Your task to perform on an android device: turn off translation in the chrome app Image 0: 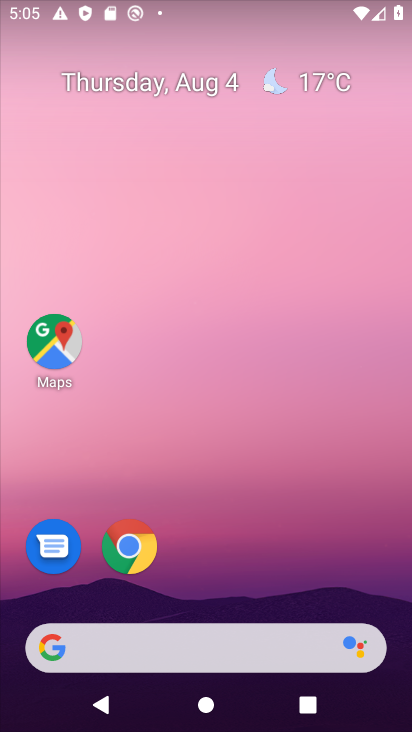
Step 0: click (133, 553)
Your task to perform on an android device: turn off translation in the chrome app Image 1: 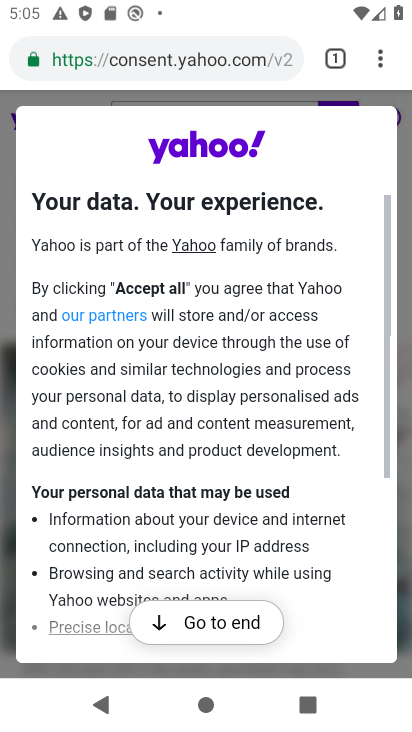
Step 1: click (376, 63)
Your task to perform on an android device: turn off translation in the chrome app Image 2: 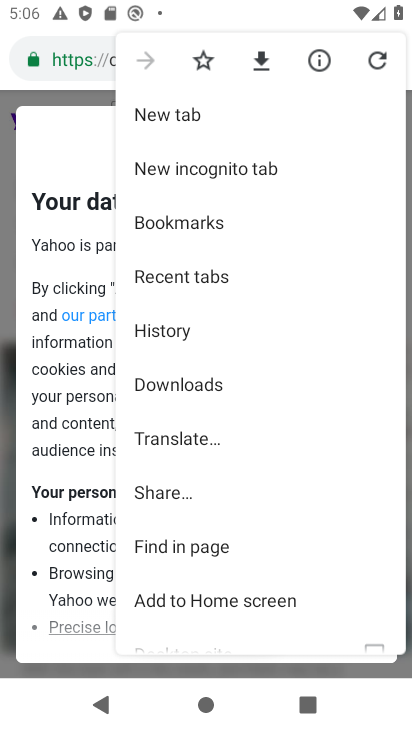
Step 2: drag from (190, 515) to (149, 185)
Your task to perform on an android device: turn off translation in the chrome app Image 3: 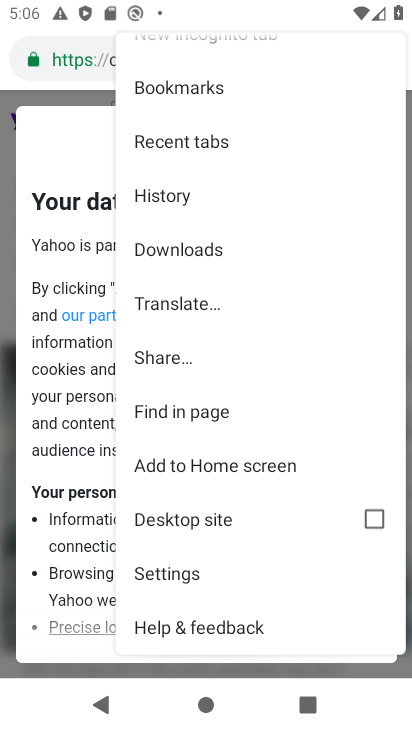
Step 3: click (172, 593)
Your task to perform on an android device: turn off translation in the chrome app Image 4: 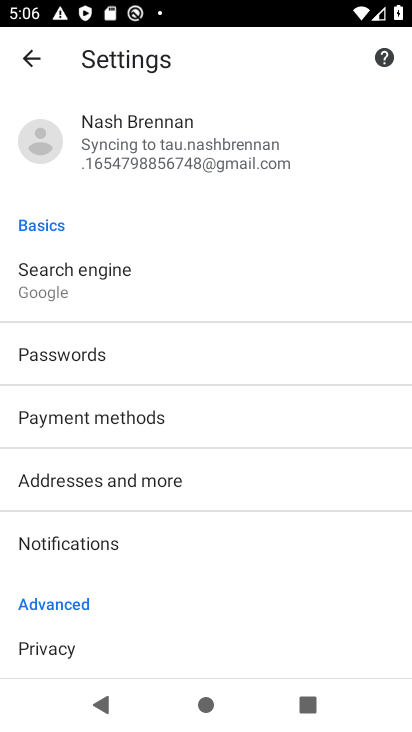
Step 4: drag from (189, 593) to (131, 167)
Your task to perform on an android device: turn off translation in the chrome app Image 5: 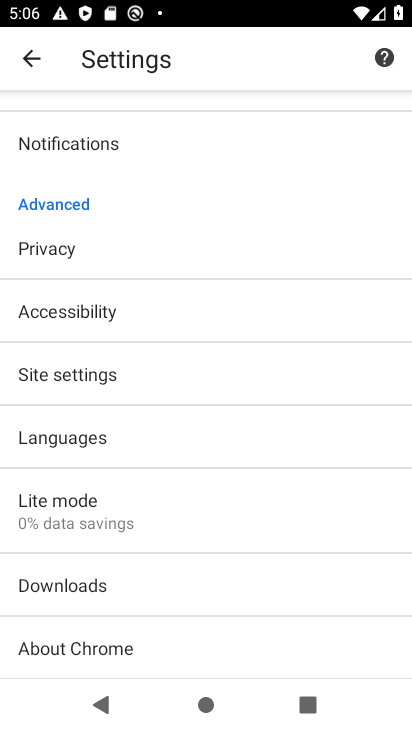
Step 5: click (73, 429)
Your task to perform on an android device: turn off translation in the chrome app Image 6: 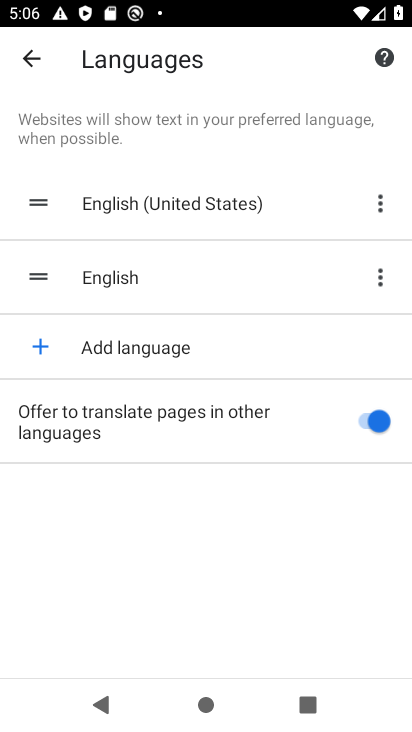
Step 6: click (363, 421)
Your task to perform on an android device: turn off translation in the chrome app Image 7: 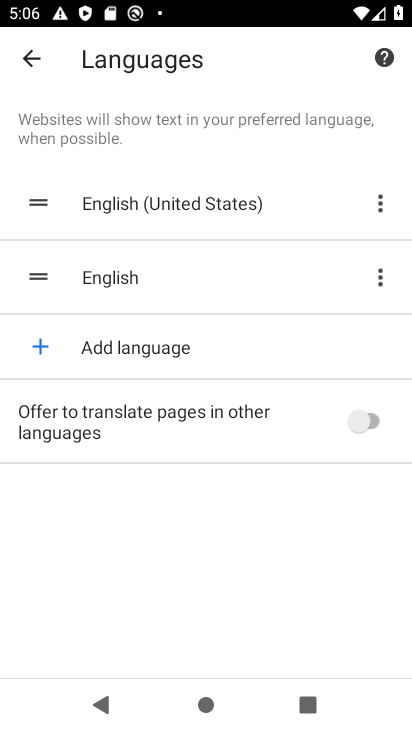
Step 7: task complete